Your task to perform on an android device: clear all cookies in the chrome app Image 0: 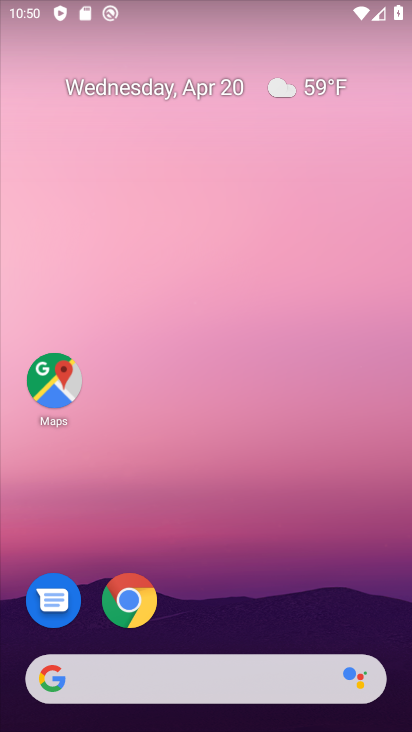
Step 0: click (145, 586)
Your task to perform on an android device: clear all cookies in the chrome app Image 1: 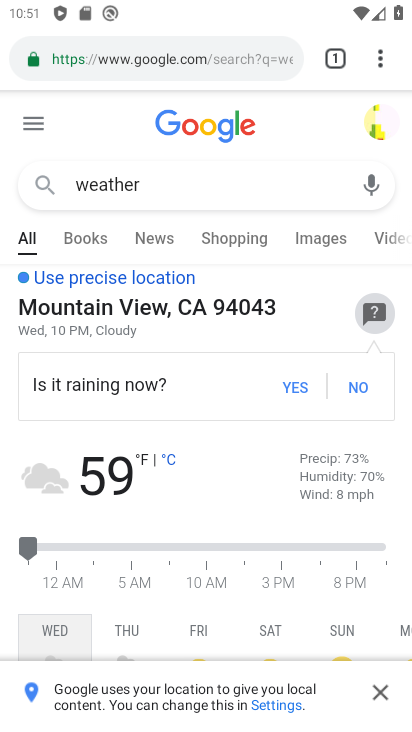
Step 1: click (382, 79)
Your task to perform on an android device: clear all cookies in the chrome app Image 2: 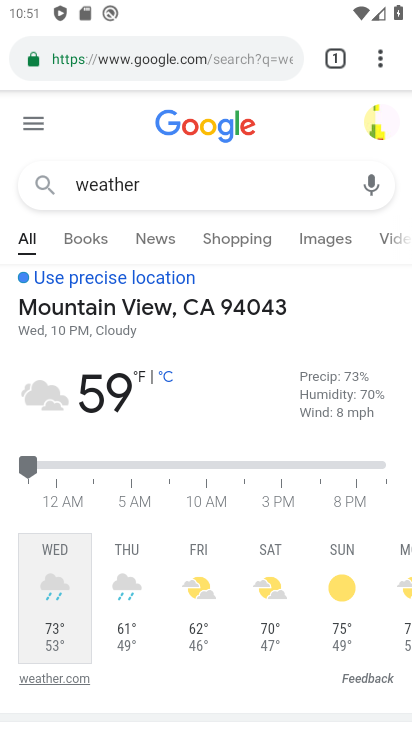
Step 2: drag from (375, 72) to (218, 321)
Your task to perform on an android device: clear all cookies in the chrome app Image 3: 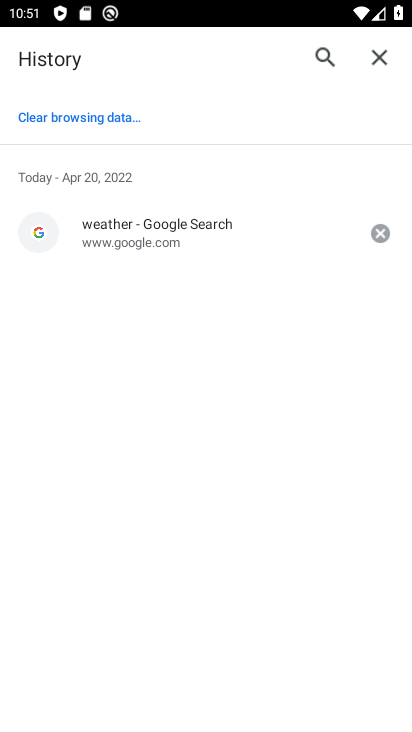
Step 3: click (96, 118)
Your task to perform on an android device: clear all cookies in the chrome app Image 4: 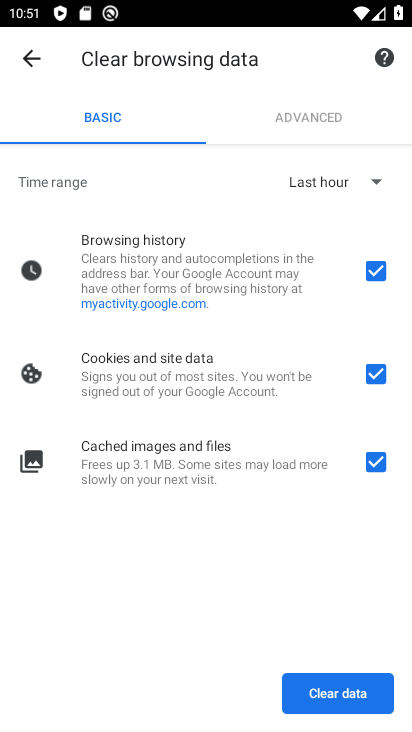
Step 4: click (372, 451)
Your task to perform on an android device: clear all cookies in the chrome app Image 5: 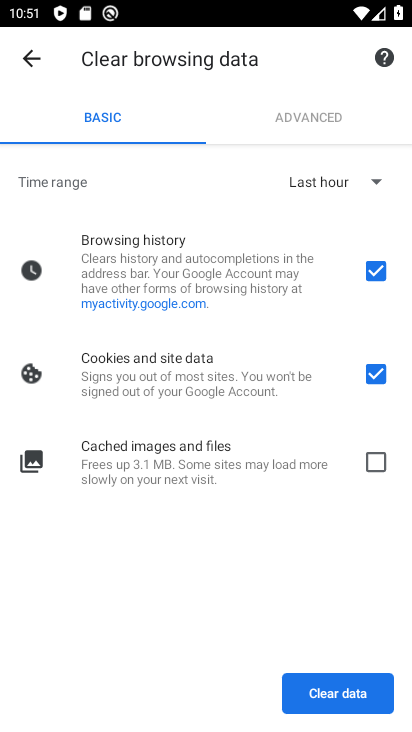
Step 5: click (382, 273)
Your task to perform on an android device: clear all cookies in the chrome app Image 6: 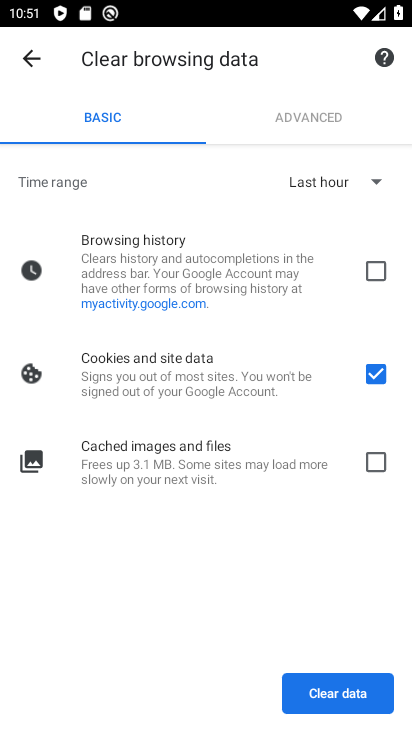
Step 6: click (362, 690)
Your task to perform on an android device: clear all cookies in the chrome app Image 7: 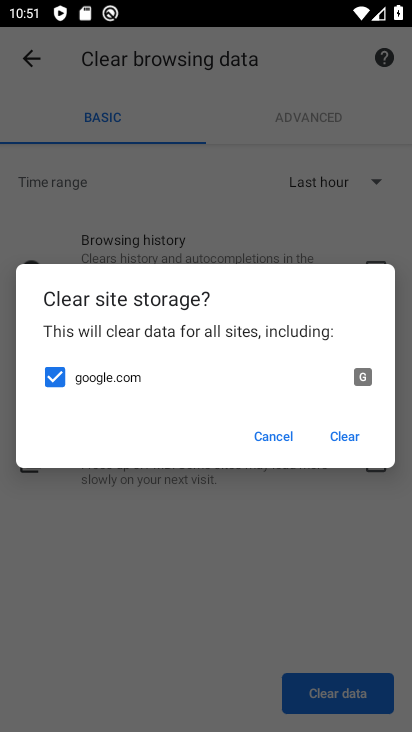
Step 7: click (348, 440)
Your task to perform on an android device: clear all cookies in the chrome app Image 8: 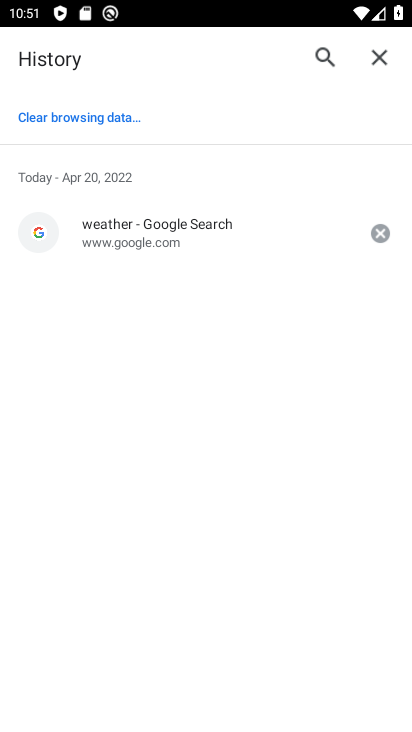
Step 8: task complete